Your task to perform on an android device: Show me the alarms in the clock app Image 0: 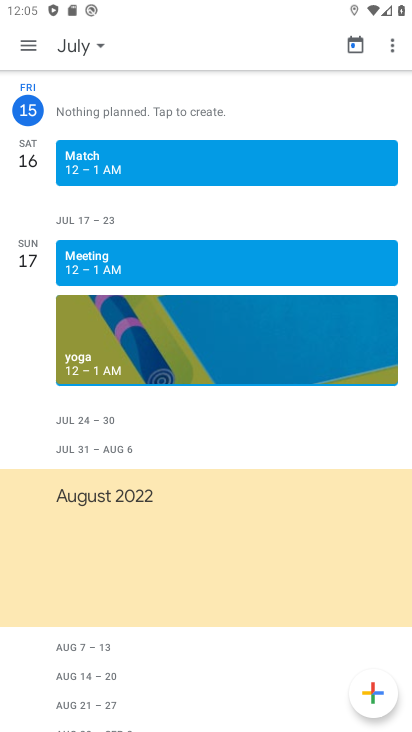
Step 0: press home button
Your task to perform on an android device: Show me the alarms in the clock app Image 1: 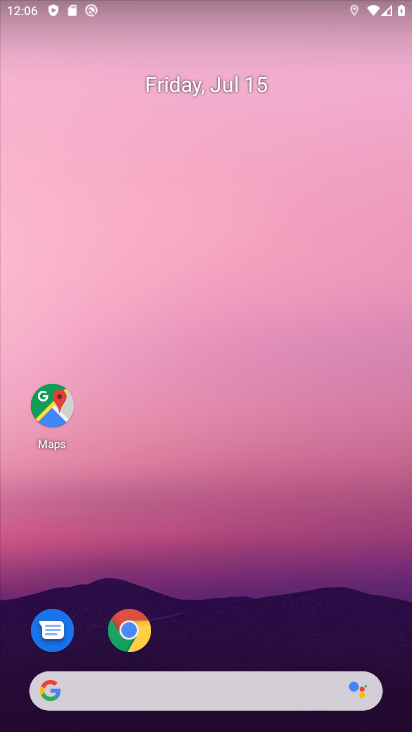
Step 1: drag from (190, 580) to (136, 35)
Your task to perform on an android device: Show me the alarms in the clock app Image 2: 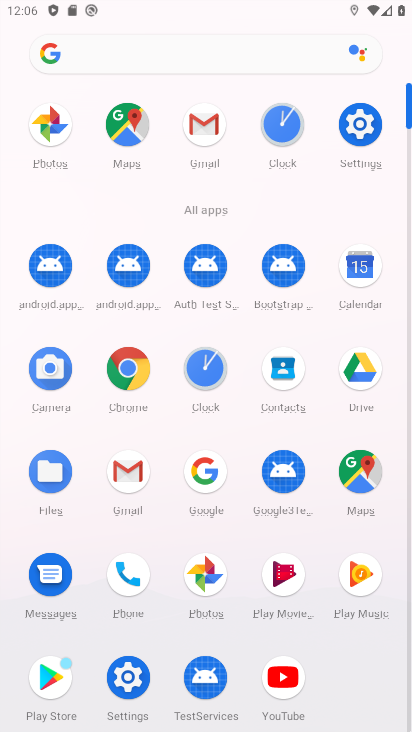
Step 2: click (285, 128)
Your task to perform on an android device: Show me the alarms in the clock app Image 3: 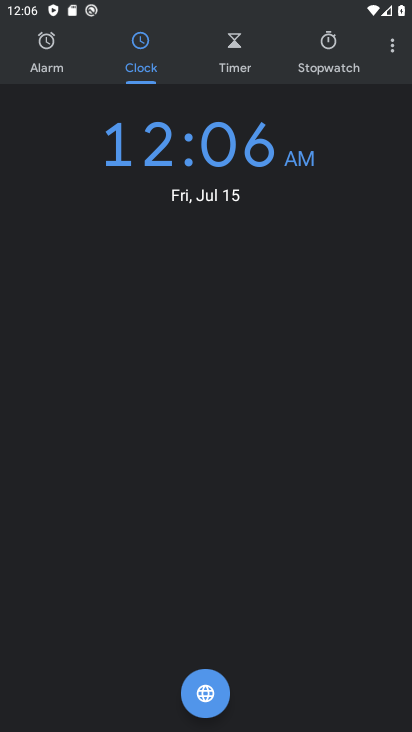
Step 3: click (392, 50)
Your task to perform on an android device: Show me the alarms in the clock app Image 4: 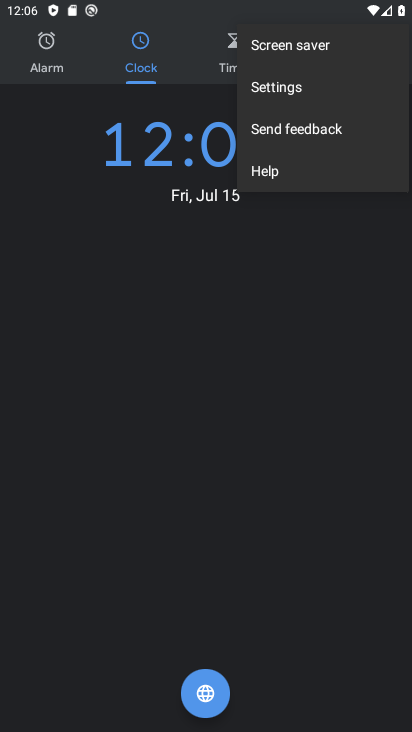
Step 4: click (51, 70)
Your task to perform on an android device: Show me the alarms in the clock app Image 5: 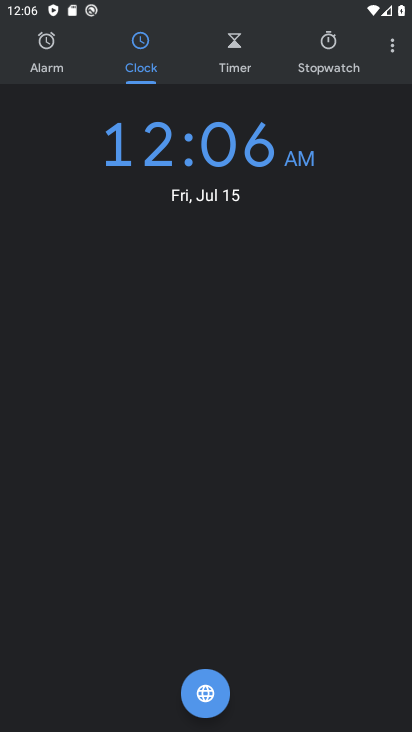
Step 5: click (51, 70)
Your task to perform on an android device: Show me the alarms in the clock app Image 6: 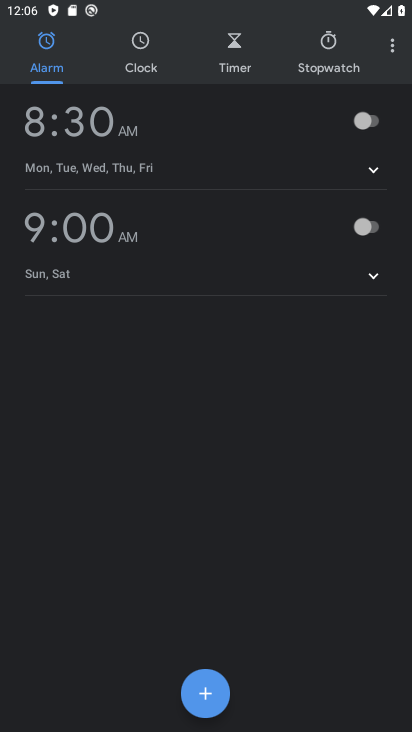
Step 6: task complete